Your task to perform on an android device: delete location history Image 0: 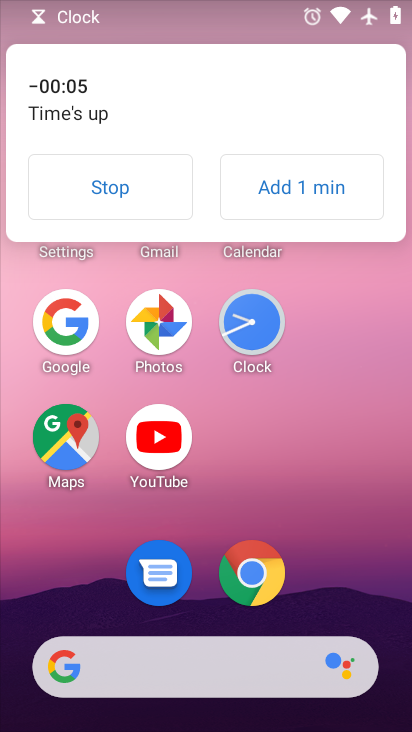
Step 0: click (118, 188)
Your task to perform on an android device: delete location history Image 1: 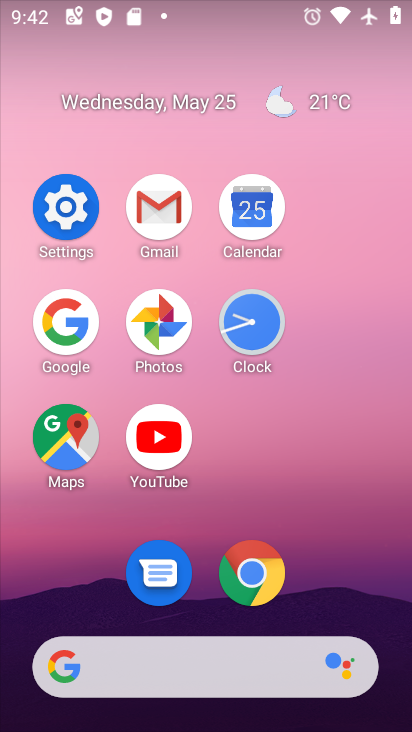
Step 1: click (77, 216)
Your task to perform on an android device: delete location history Image 2: 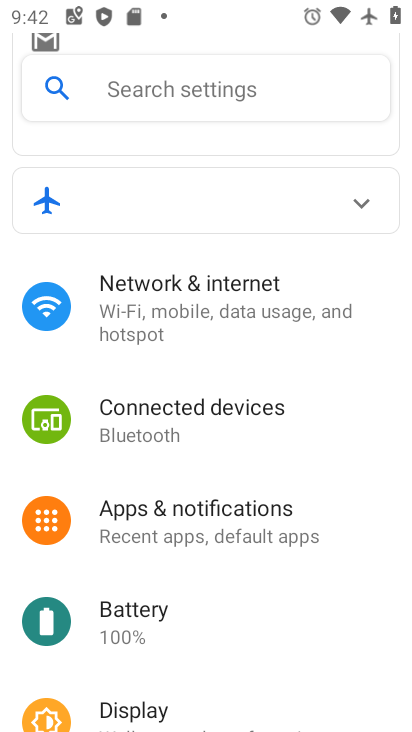
Step 2: drag from (275, 652) to (252, 264)
Your task to perform on an android device: delete location history Image 3: 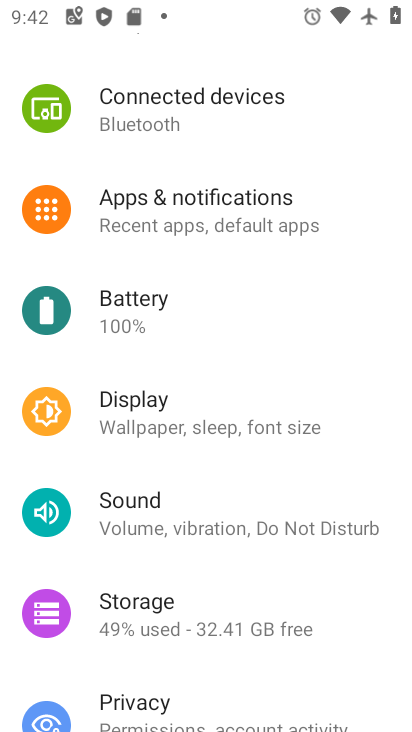
Step 3: drag from (204, 633) to (242, 222)
Your task to perform on an android device: delete location history Image 4: 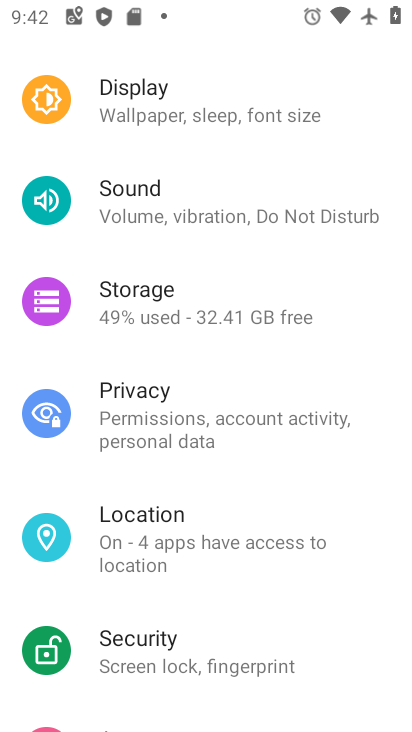
Step 4: click (226, 529)
Your task to perform on an android device: delete location history Image 5: 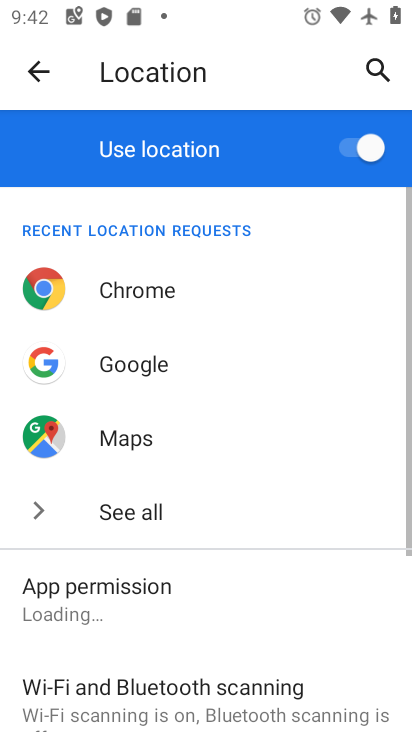
Step 5: drag from (252, 538) to (256, 180)
Your task to perform on an android device: delete location history Image 6: 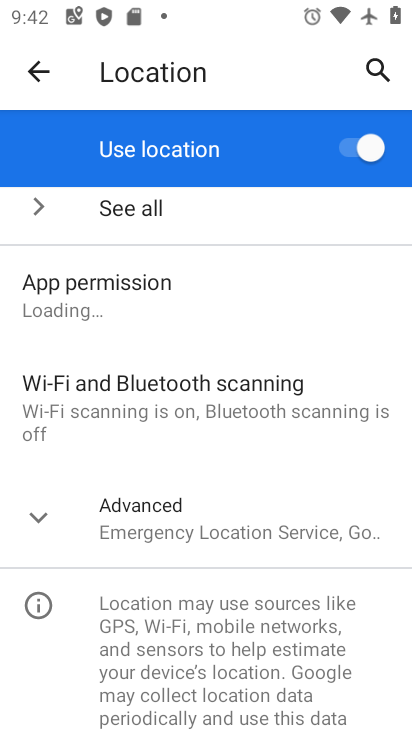
Step 6: click (201, 535)
Your task to perform on an android device: delete location history Image 7: 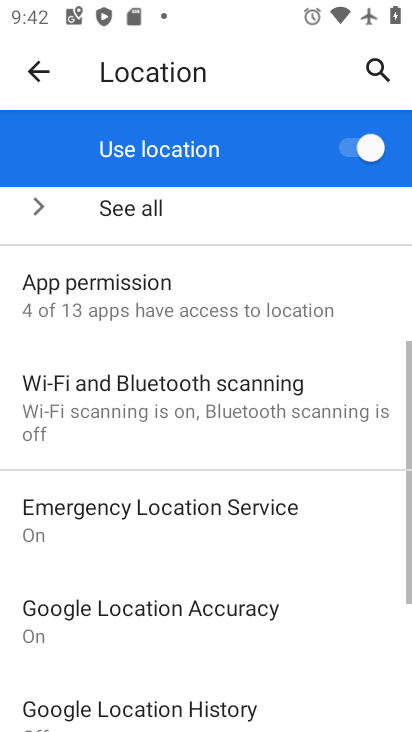
Step 7: drag from (210, 505) to (259, 141)
Your task to perform on an android device: delete location history Image 8: 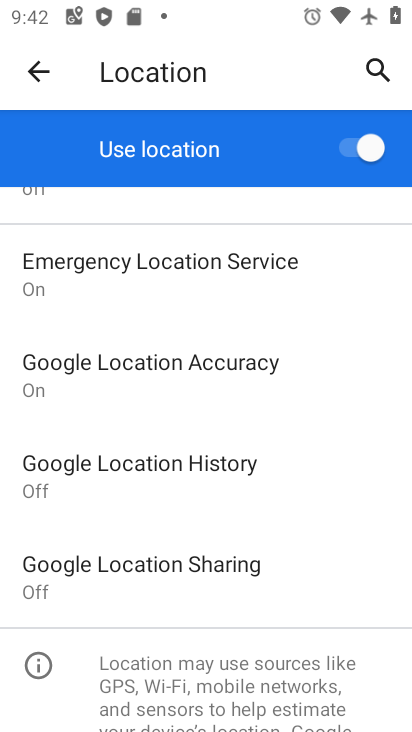
Step 8: click (203, 476)
Your task to perform on an android device: delete location history Image 9: 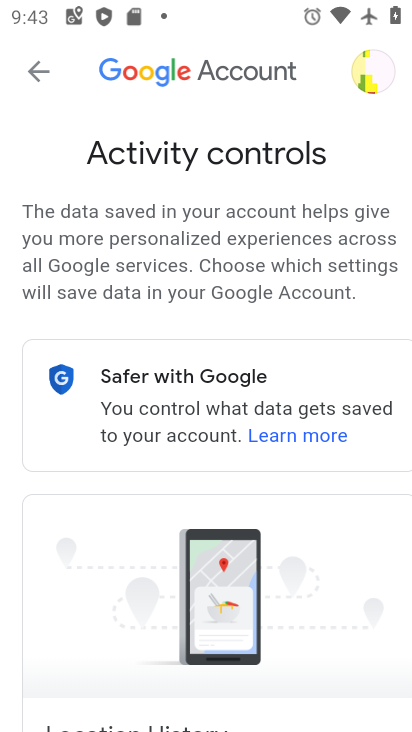
Step 9: drag from (213, 515) to (153, 125)
Your task to perform on an android device: delete location history Image 10: 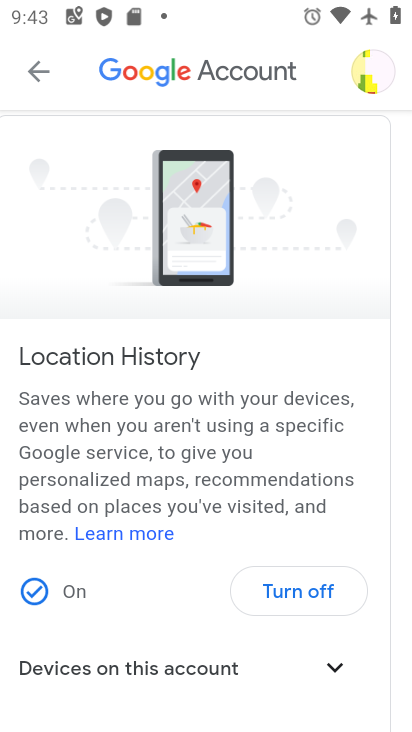
Step 10: drag from (202, 614) to (178, 206)
Your task to perform on an android device: delete location history Image 11: 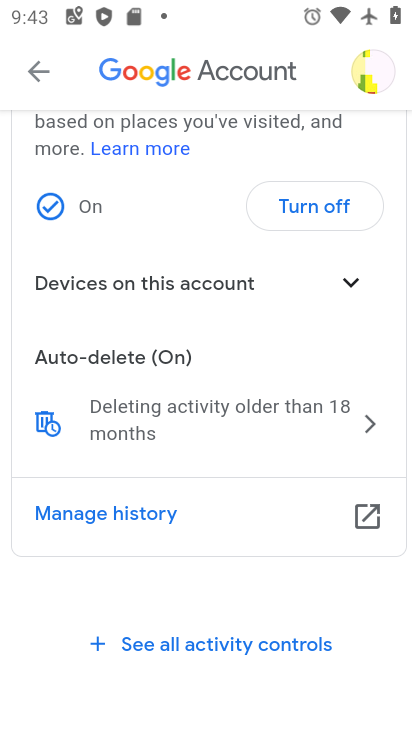
Step 11: click (300, 430)
Your task to perform on an android device: delete location history Image 12: 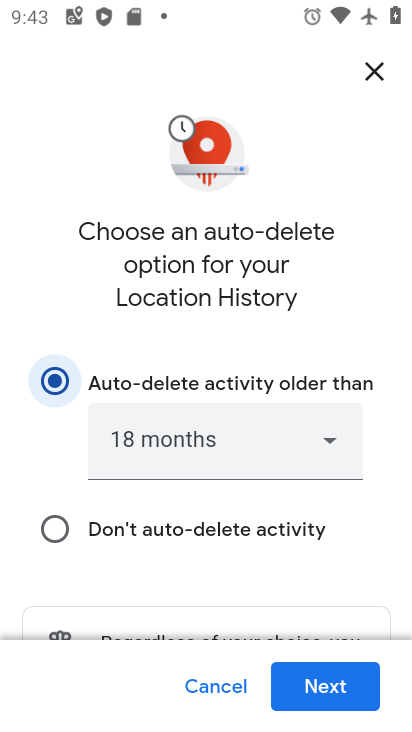
Step 12: drag from (261, 600) to (225, 163)
Your task to perform on an android device: delete location history Image 13: 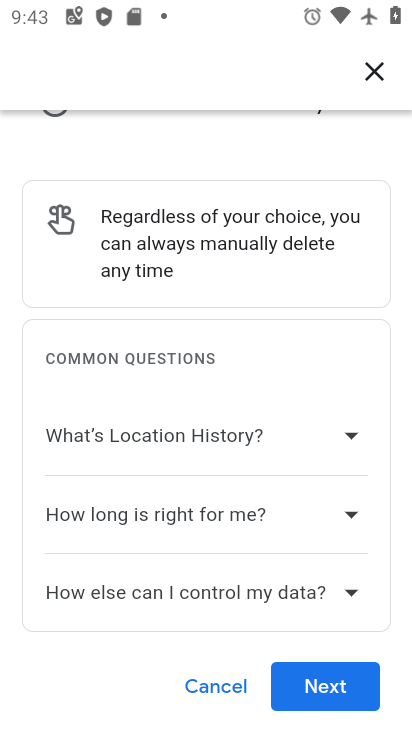
Step 13: click (361, 714)
Your task to perform on an android device: delete location history Image 14: 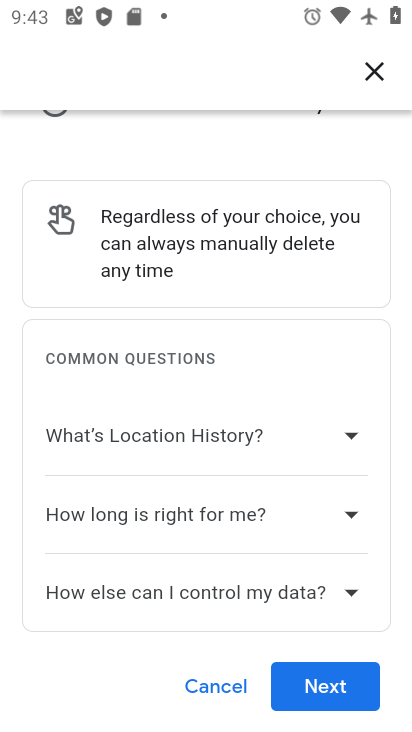
Step 14: click (352, 700)
Your task to perform on an android device: delete location history Image 15: 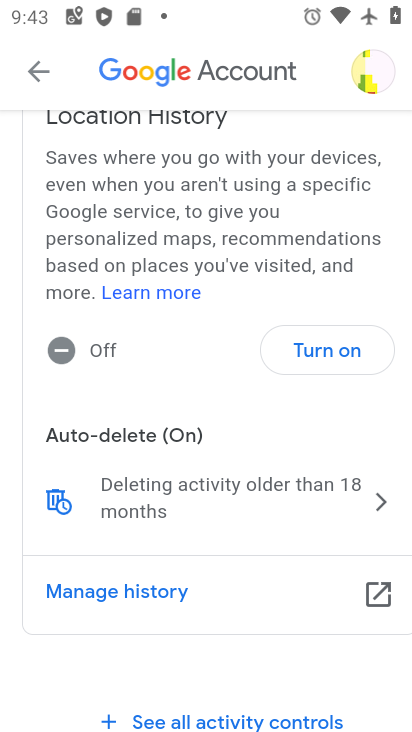
Step 15: task complete